Your task to perform on an android device: move an email to a new category in the gmail app Image 0: 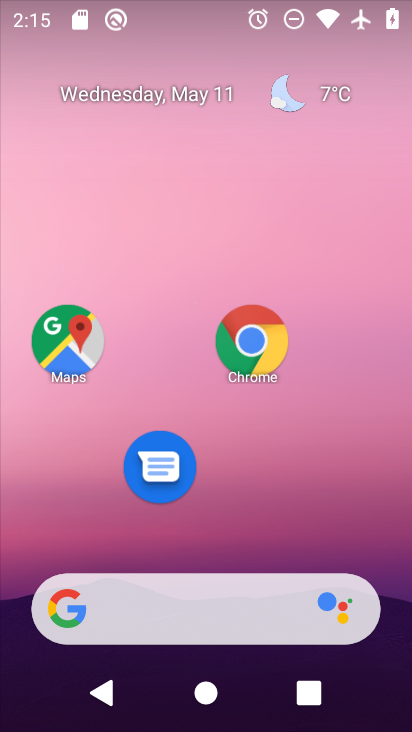
Step 0: press home button
Your task to perform on an android device: move an email to a new category in the gmail app Image 1: 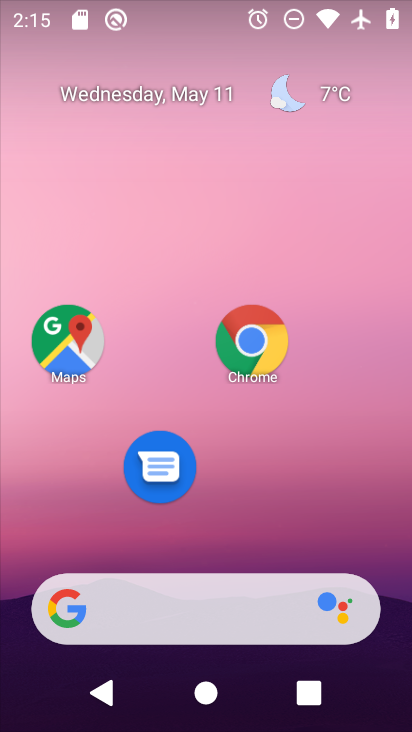
Step 1: drag from (184, 623) to (299, 89)
Your task to perform on an android device: move an email to a new category in the gmail app Image 2: 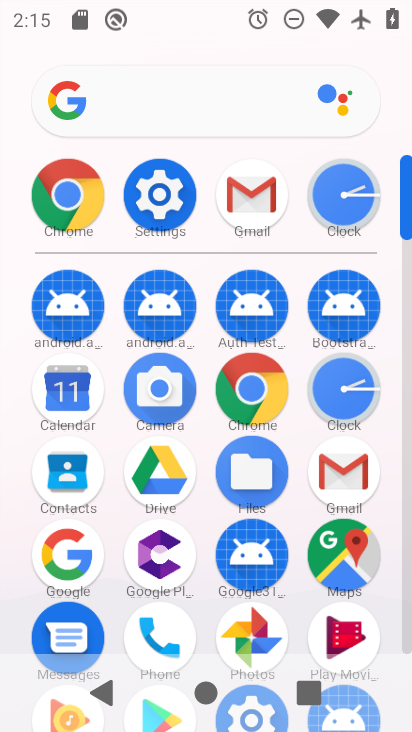
Step 2: click (329, 479)
Your task to perform on an android device: move an email to a new category in the gmail app Image 3: 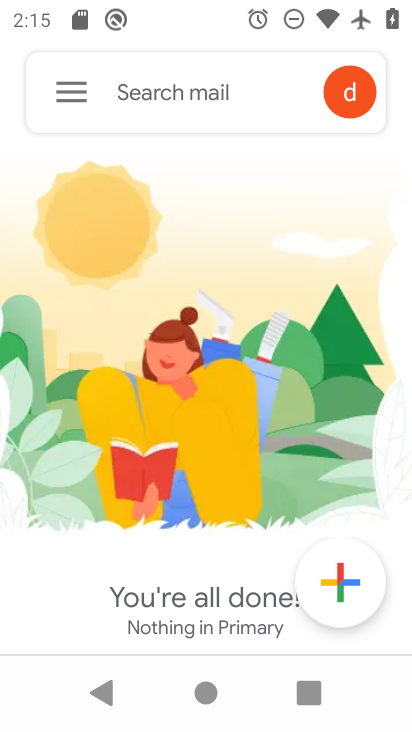
Step 3: task complete